Your task to perform on an android device: open a bookmark in the chrome app Image 0: 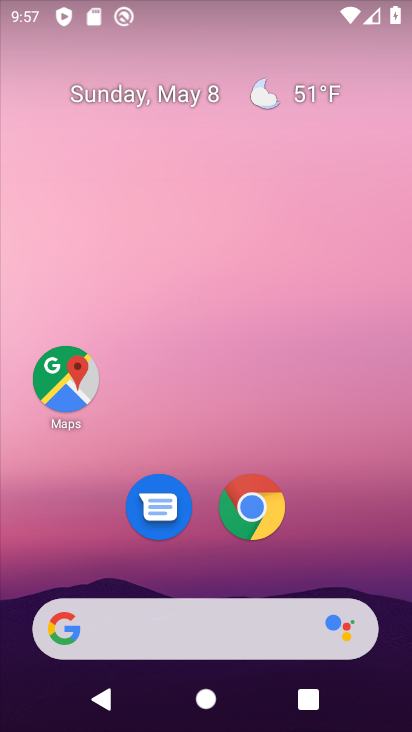
Step 0: click (247, 503)
Your task to perform on an android device: open a bookmark in the chrome app Image 1: 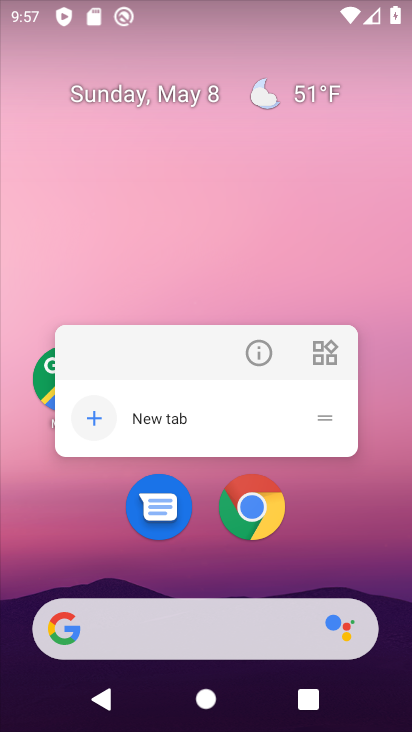
Step 1: click (253, 510)
Your task to perform on an android device: open a bookmark in the chrome app Image 2: 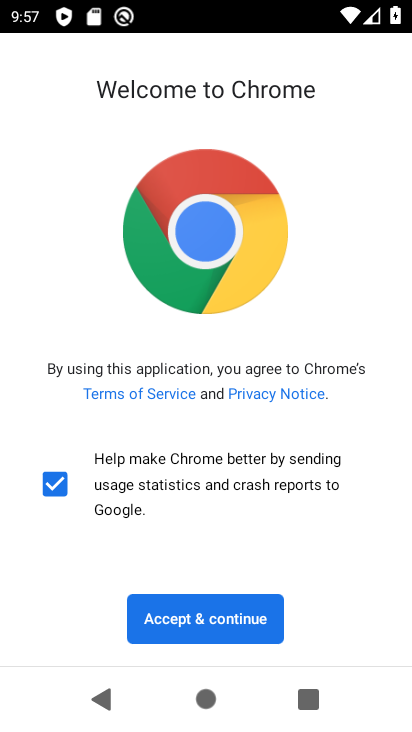
Step 2: click (195, 605)
Your task to perform on an android device: open a bookmark in the chrome app Image 3: 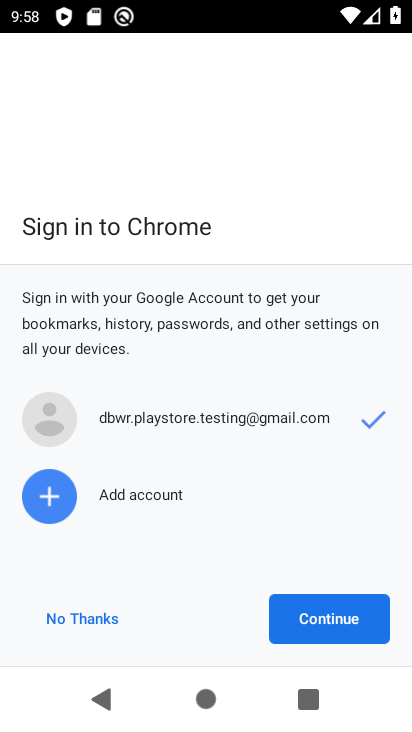
Step 3: click (330, 614)
Your task to perform on an android device: open a bookmark in the chrome app Image 4: 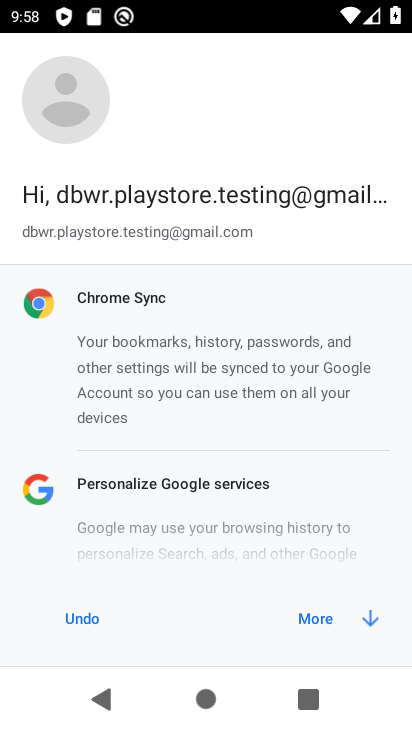
Step 4: click (322, 615)
Your task to perform on an android device: open a bookmark in the chrome app Image 5: 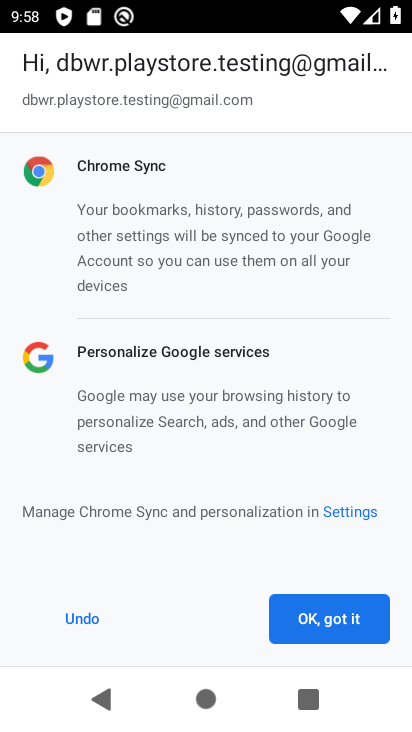
Step 5: click (322, 615)
Your task to perform on an android device: open a bookmark in the chrome app Image 6: 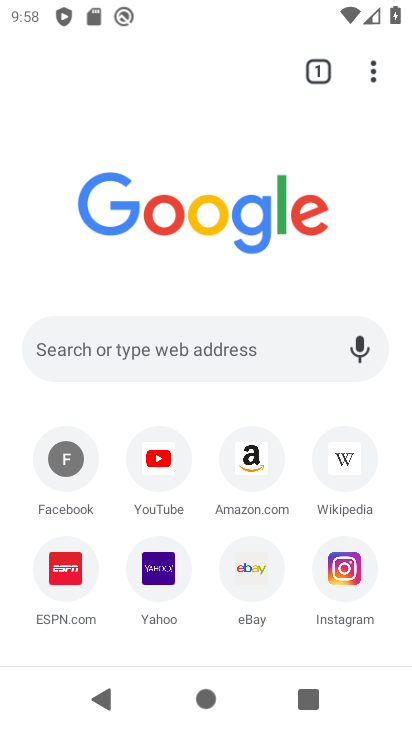
Step 6: click (365, 64)
Your task to perform on an android device: open a bookmark in the chrome app Image 7: 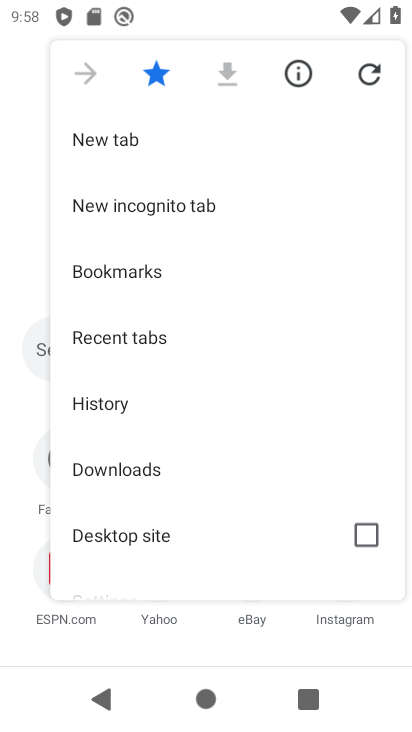
Step 7: click (177, 266)
Your task to perform on an android device: open a bookmark in the chrome app Image 8: 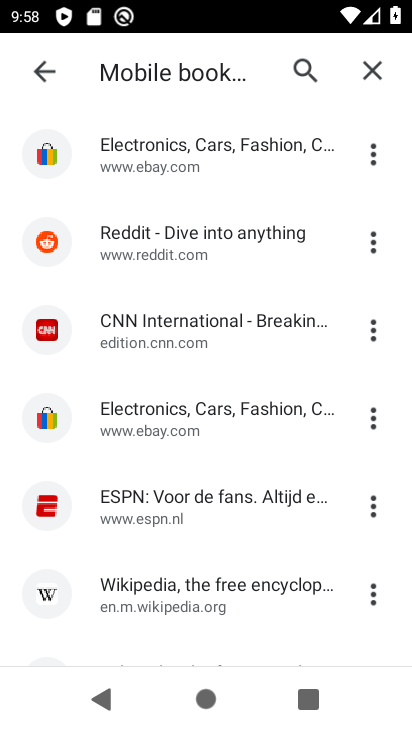
Step 8: click (197, 584)
Your task to perform on an android device: open a bookmark in the chrome app Image 9: 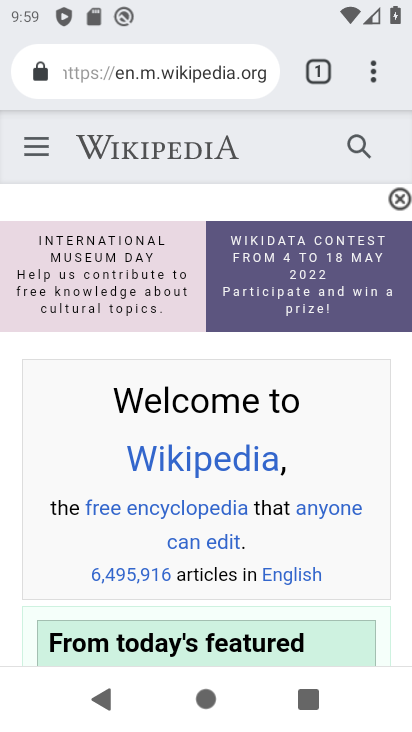
Step 9: task complete